Your task to perform on an android device: turn off improve location accuracy Image 0: 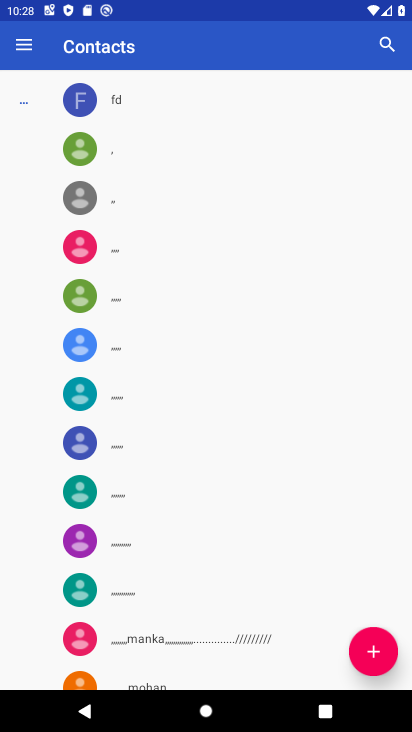
Step 0: drag from (268, 604) to (241, 105)
Your task to perform on an android device: turn off improve location accuracy Image 1: 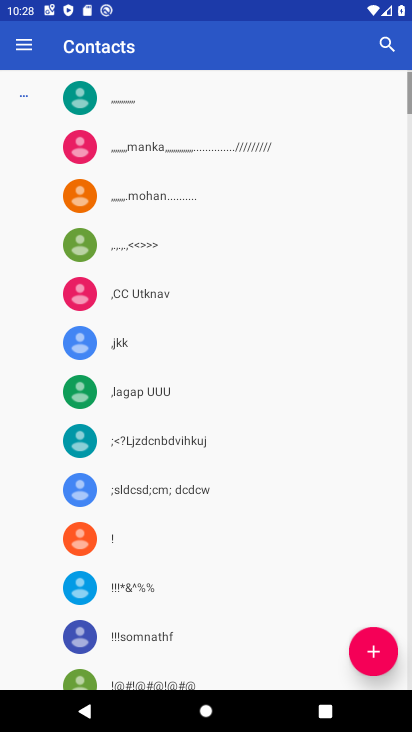
Step 1: press home button
Your task to perform on an android device: turn off improve location accuracy Image 2: 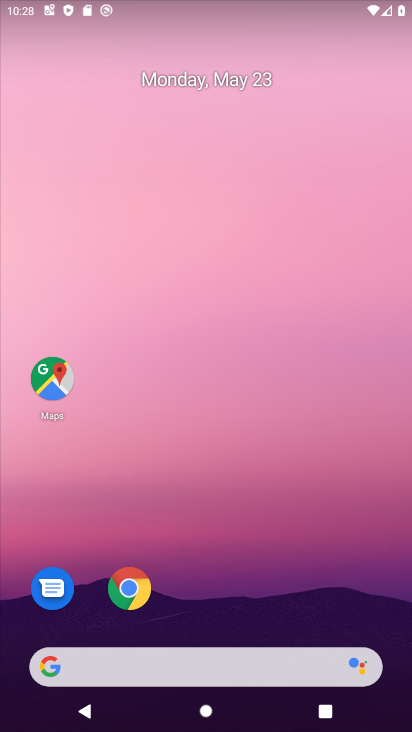
Step 2: drag from (245, 558) to (296, 150)
Your task to perform on an android device: turn off improve location accuracy Image 3: 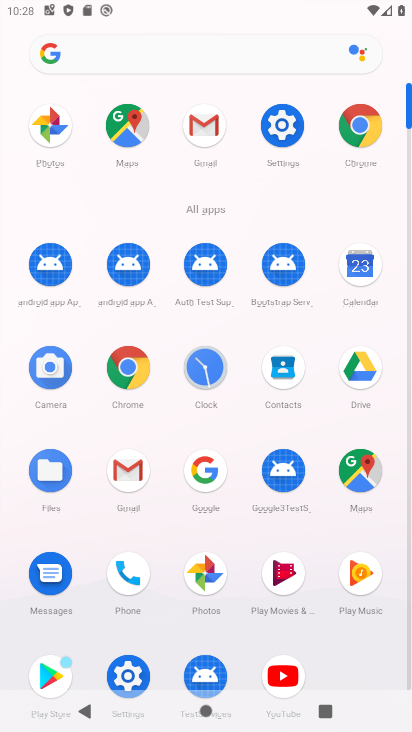
Step 3: click (286, 105)
Your task to perform on an android device: turn off improve location accuracy Image 4: 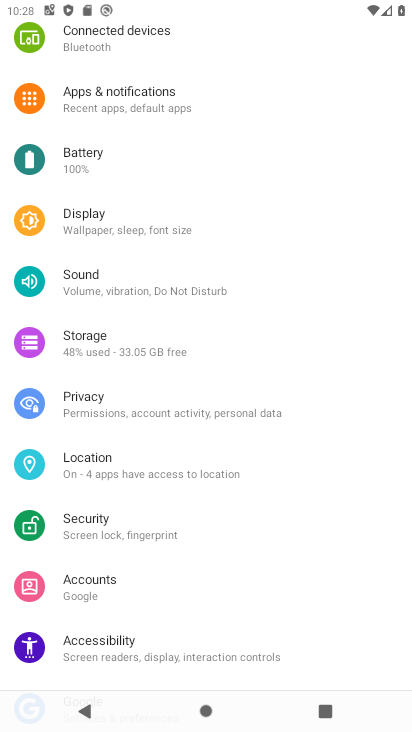
Step 4: drag from (204, 561) to (250, 328)
Your task to perform on an android device: turn off improve location accuracy Image 5: 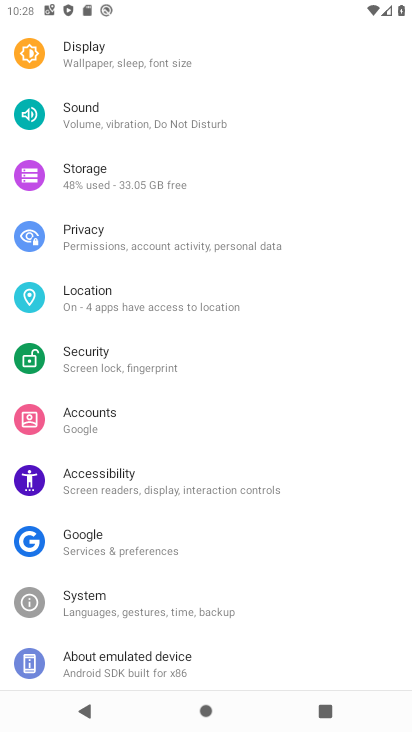
Step 5: drag from (250, 321) to (231, 473)
Your task to perform on an android device: turn off improve location accuracy Image 6: 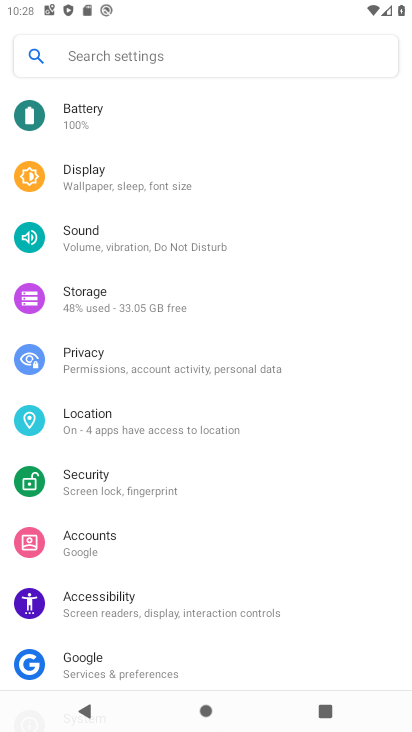
Step 6: drag from (152, 343) to (158, 474)
Your task to perform on an android device: turn off improve location accuracy Image 7: 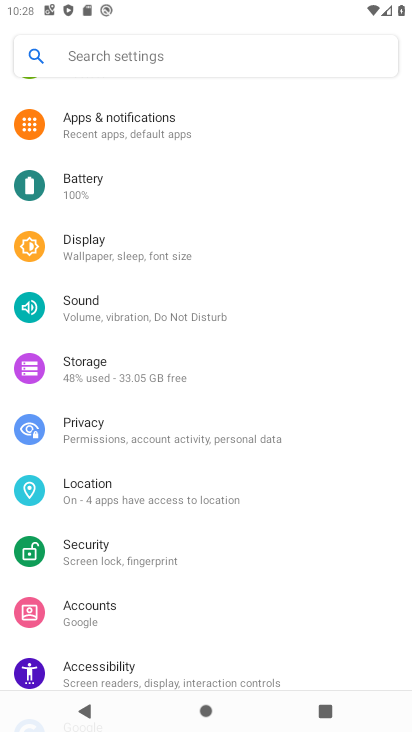
Step 7: click (136, 505)
Your task to perform on an android device: turn off improve location accuracy Image 8: 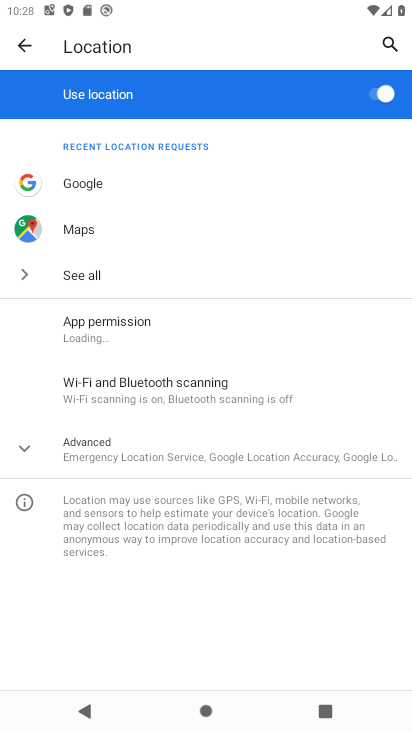
Step 8: click (114, 462)
Your task to perform on an android device: turn off improve location accuracy Image 9: 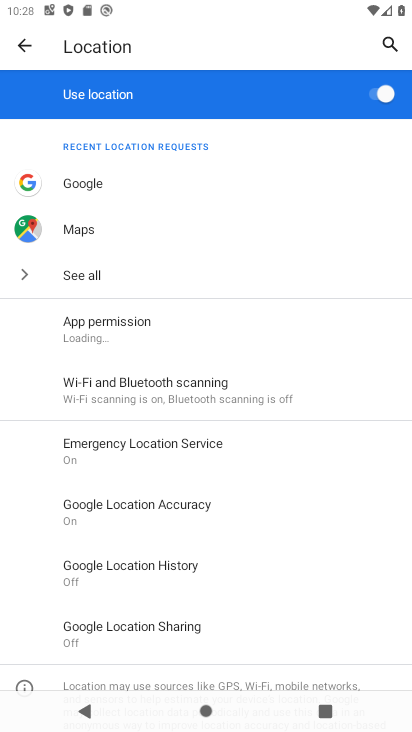
Step 9: click (185, 498)
Your task to perform on an android device: turn off improve location accuracy Image 10: 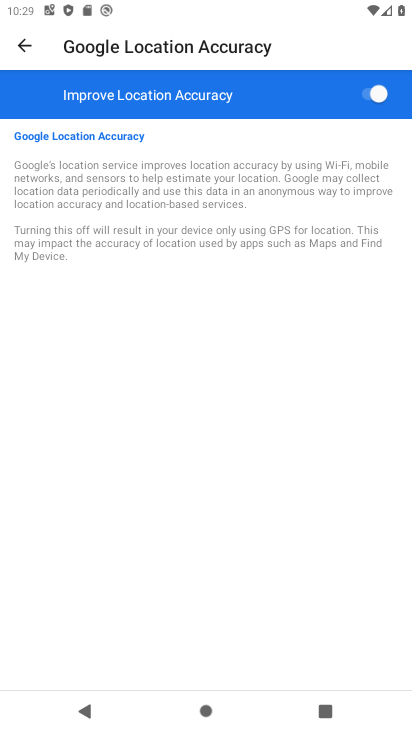
Step 10: click (369, 97)
Your task to perform on an android device: turn off improve location accuracy Image 11: 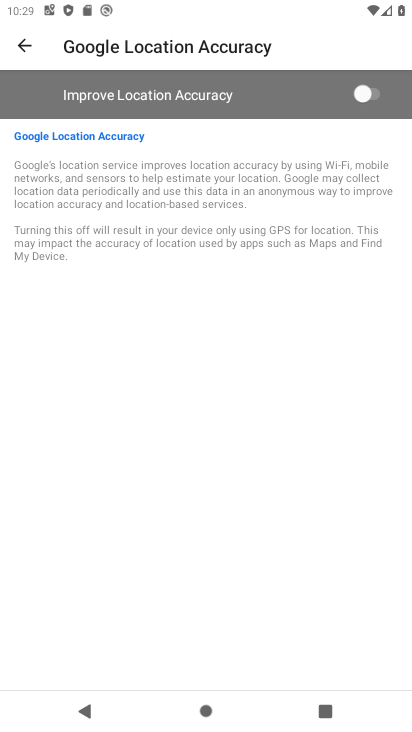
Step 11: task complete